Your task to perform on an android device: check android version Image 0: 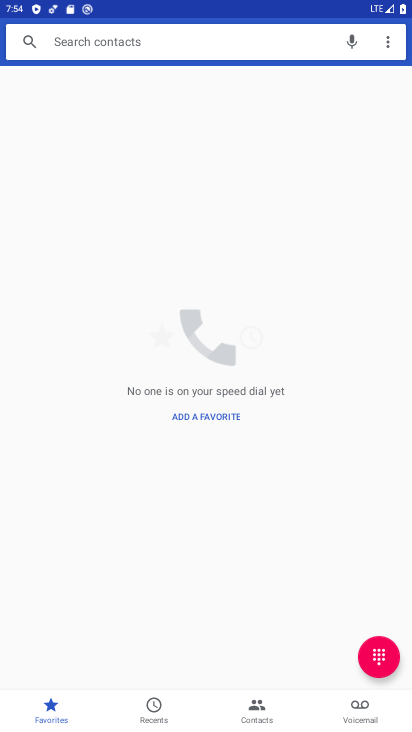
Step 0: press home button
Your task to perform on an android device: check android version Image 1: 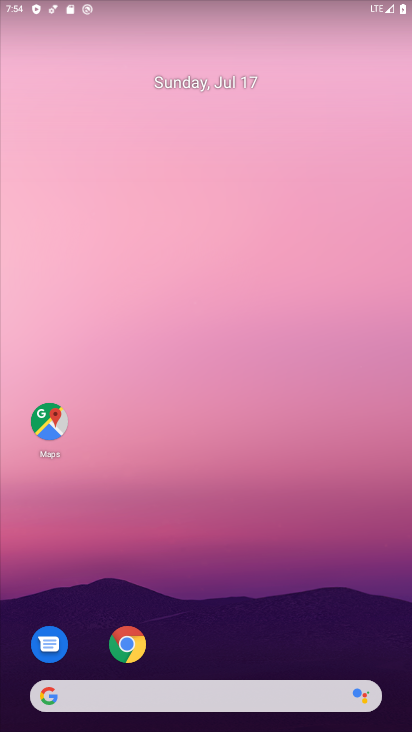
Step 1: drag from (286, 556) to (174, 1)
Your task to perform on an android device: check android version Image 2: 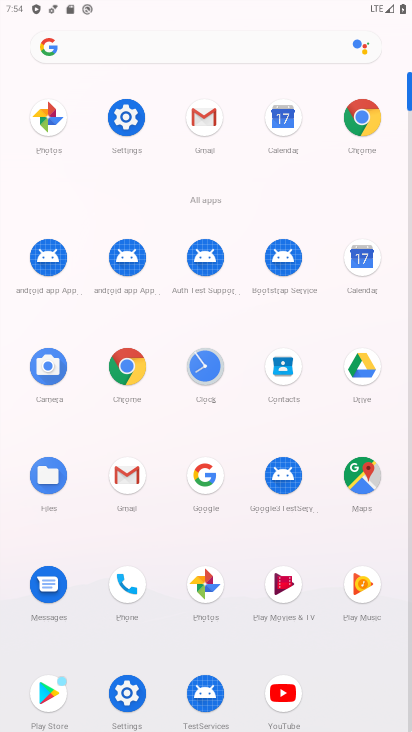
Step 2: click (124, 114)
Your task to perform on an android device: check android version Image 3: 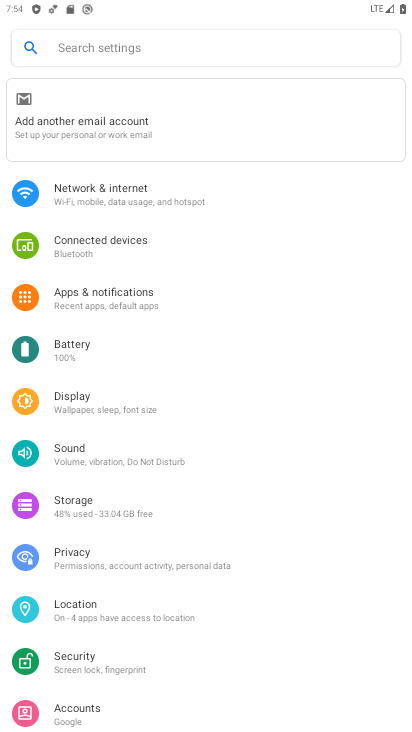
Step 3: drag from (278, 654) to (232, 158)
Your task to perform on an android device: check android version Image 4: 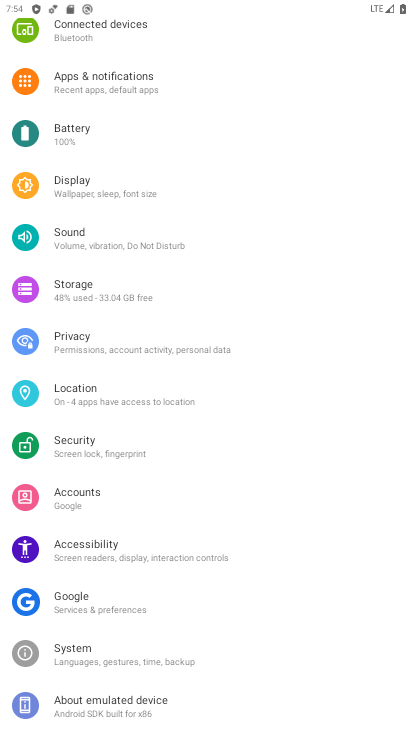
Step 4: drag from (252, 627) to (223, 209)
Your task to perform on an android device: check android version Image 5: 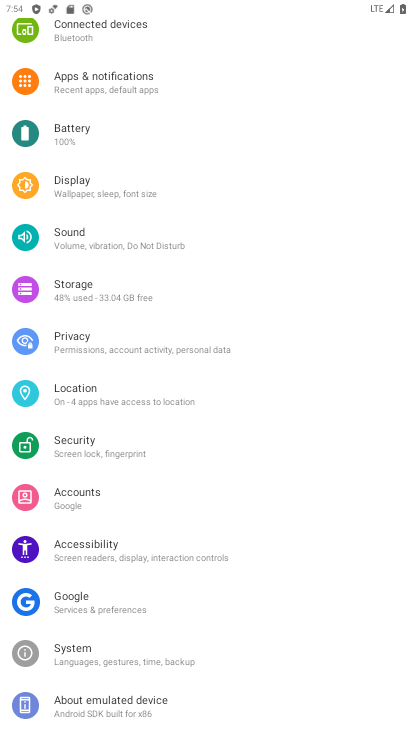
Step 5: click (127, 698)
Your task to perform on an android device: check android version Image 6: 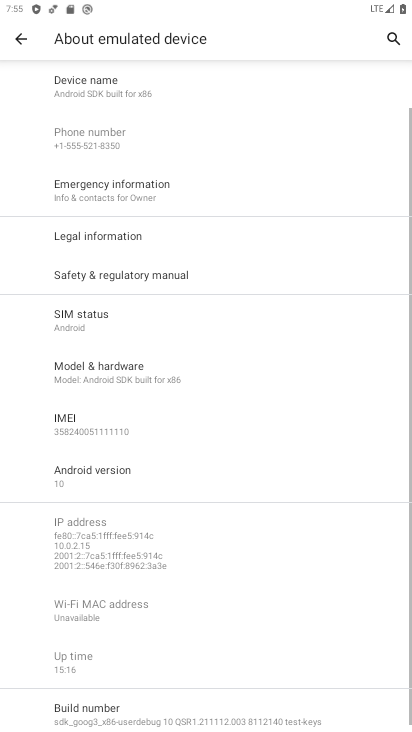
Step 6: task complete